Your task to perform on an android device: manage bookmarks in the chrome app Image 0: 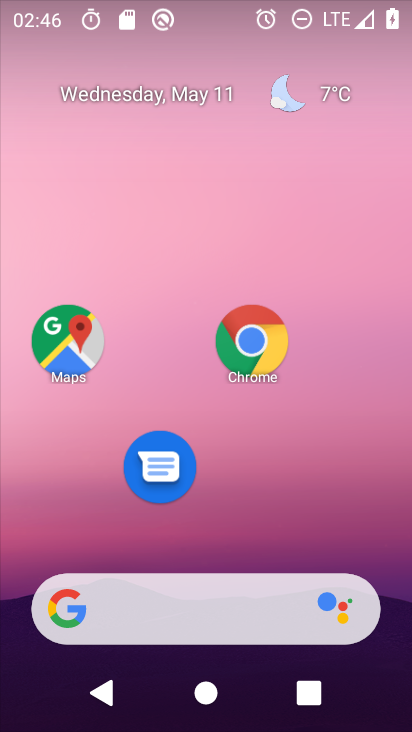
Step 0: drag from (186, 619) to (294, 80)
Your task to perform on an android device: manage bookmarks in the chrome app Image 1: 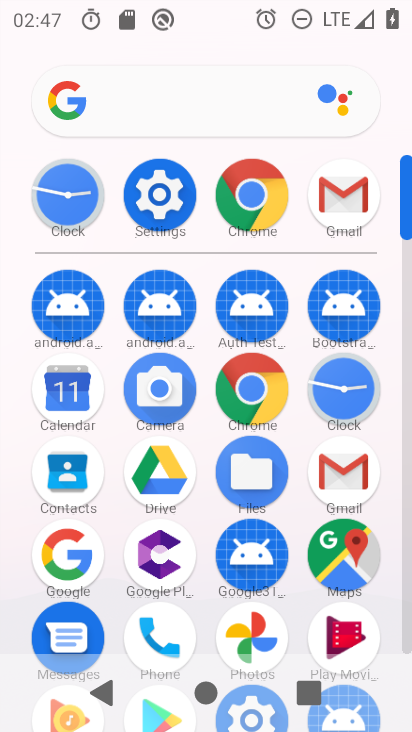
Step 1: click (237, 206)
Your task to perform on an android device: manage bookmarks in the chrome app Image 2: 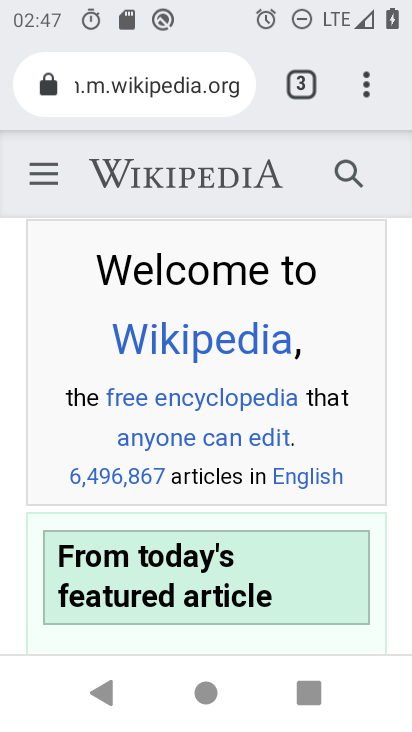
Step 2: task complete